Your task to perform on an android device: What's the price of the new iPhone on eBay? Image 0: 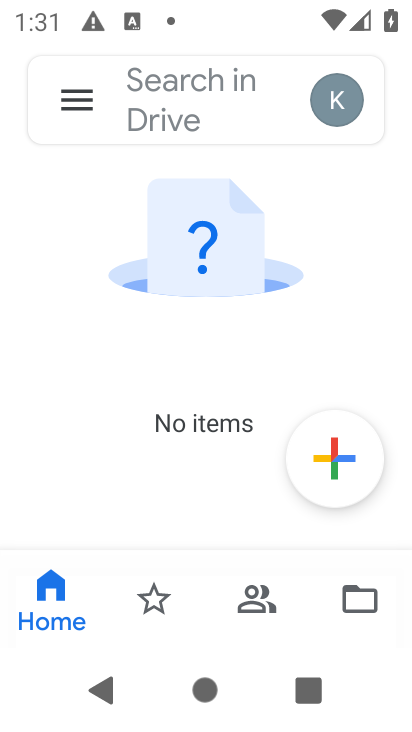
Step 0: task complete